Your task to perform on an android device: turn on priority inbox in the gmail app Image 0: 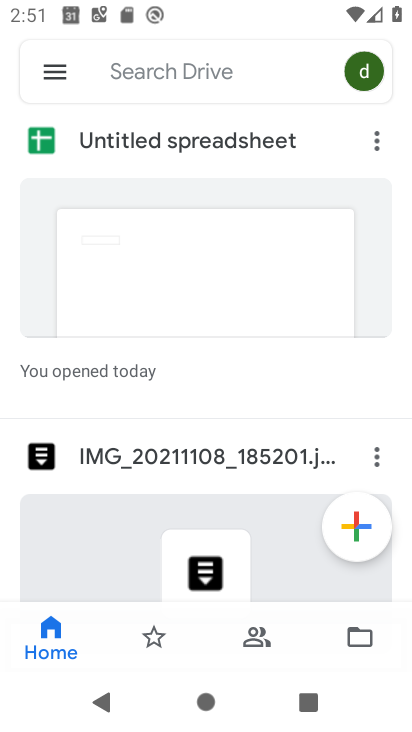
Step 0: press home button
Your task to perform on an android device: turn on priority inbox in the gmail app Image 1: 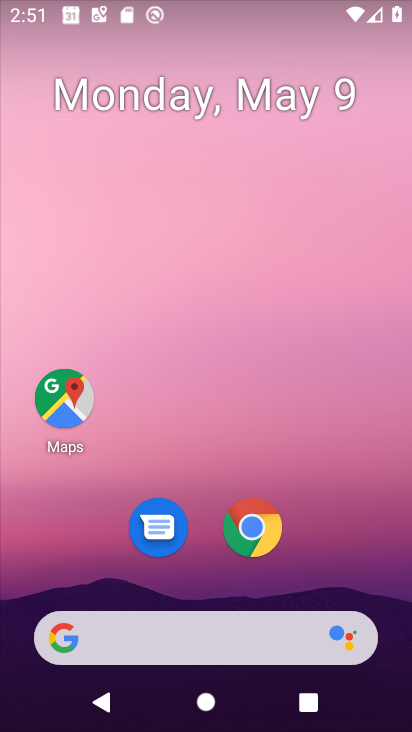
Step 1: drag from (196, 585) to (207, 156)
Your task to perform on an android device: turn on priority inbox in the gmail app Image 2: 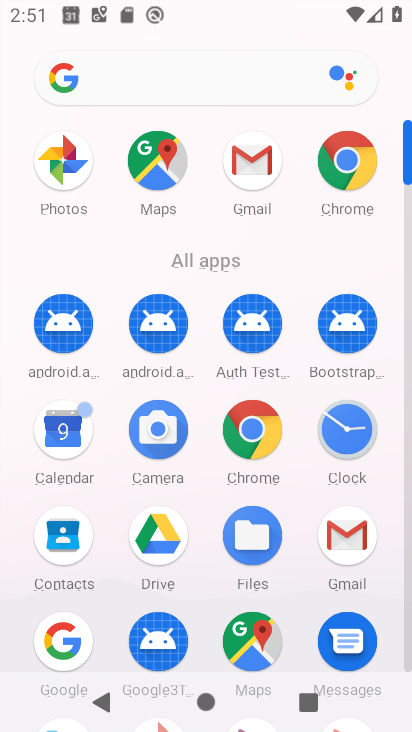
Step 2: click (357, 556)
Your task to perform on an android device: turn on priority inbox in the gmail app Image 3: 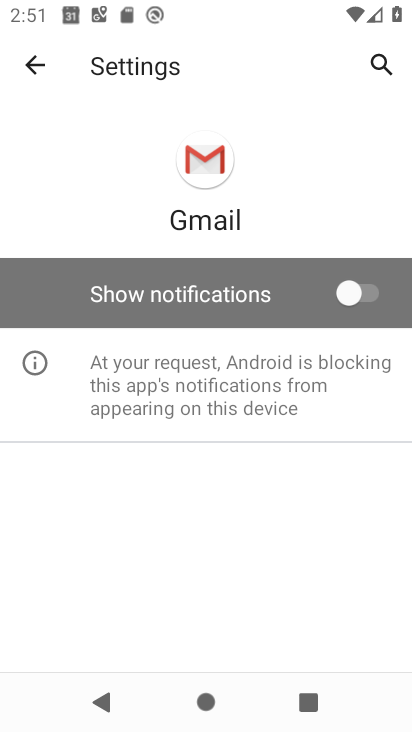
Step 3: click (29, 49)
Your task to perform on an android device: turn on priority inbox in the gmail app Image 4: 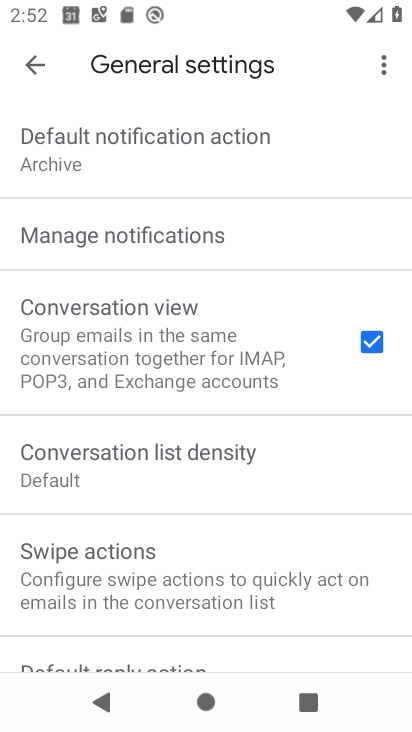
Step 4: click (45, 72)
Your task to perform on an android device: turn on priority inbox in the gmail app Image 5: 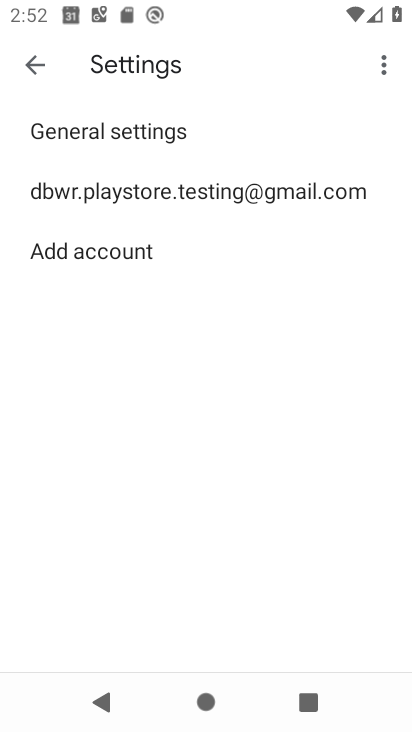
Step 5: click (124, 197)
Your task to perform on an android device: turn on priority inbox in the gmail app Image 6: 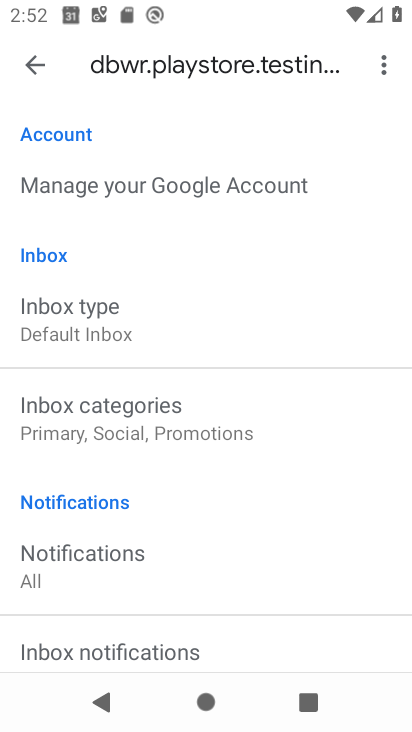
Step 6: click (95, 337)
Your task to perform on an android device: turn on priority inbox in the gmail app Image 7: 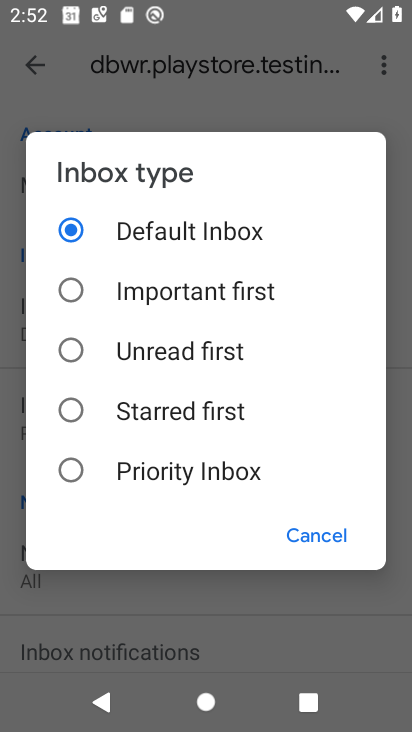
Step 7: click (95, 459)
Your task to perform on an android device: turn on priority inbox in the gmail app Image 8: 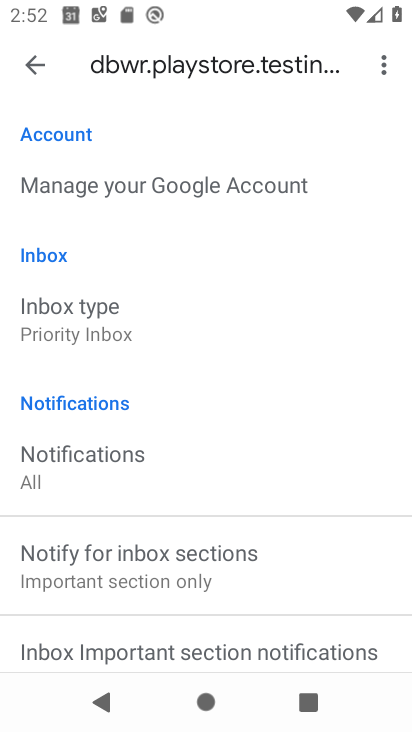
Step 8: task complete